Your task to perform on an android device: Search for macbook air on walmart, select the first entry, add it to the cart, then select checkout. Image 0: 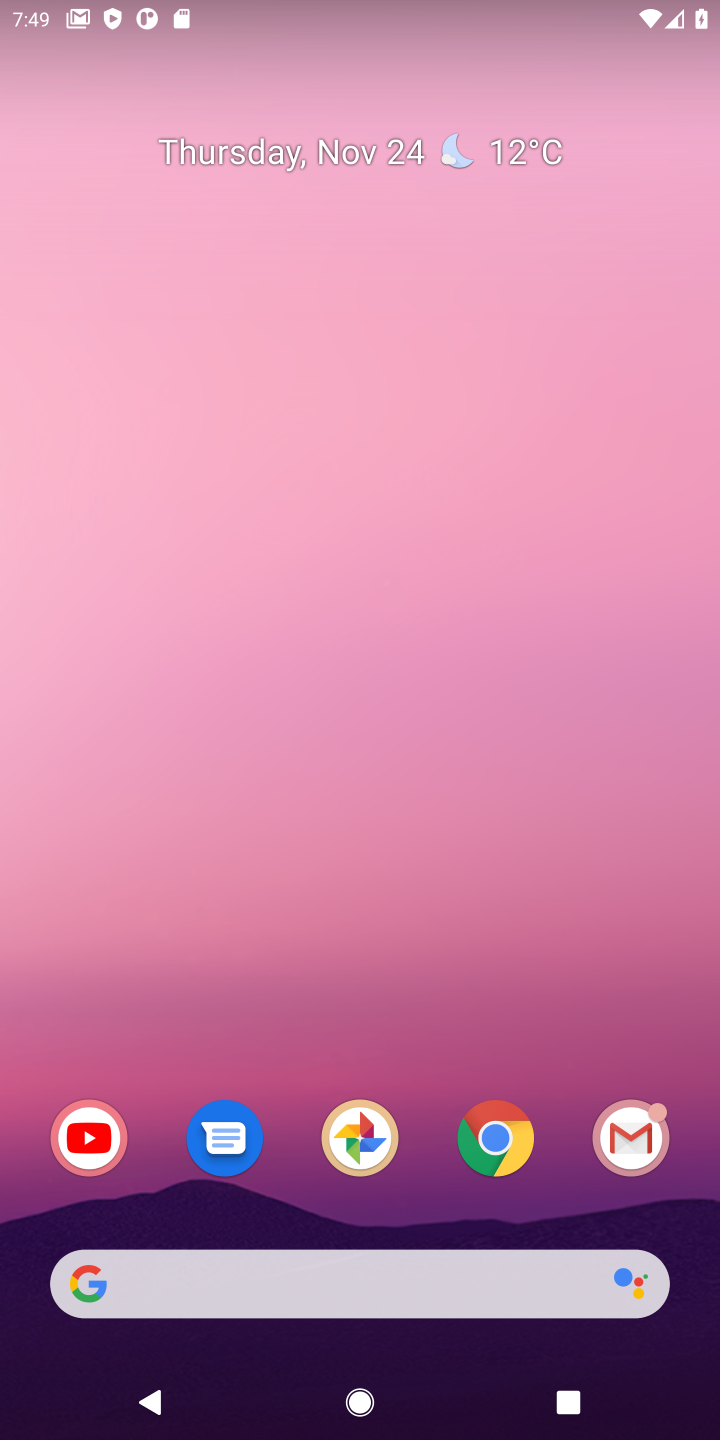
Step 0: click (495, 1124)
Your task to perform on an android device: Search for macbook air on walmart, select the first entry, add it to the cart, then select checkout. Image 1: 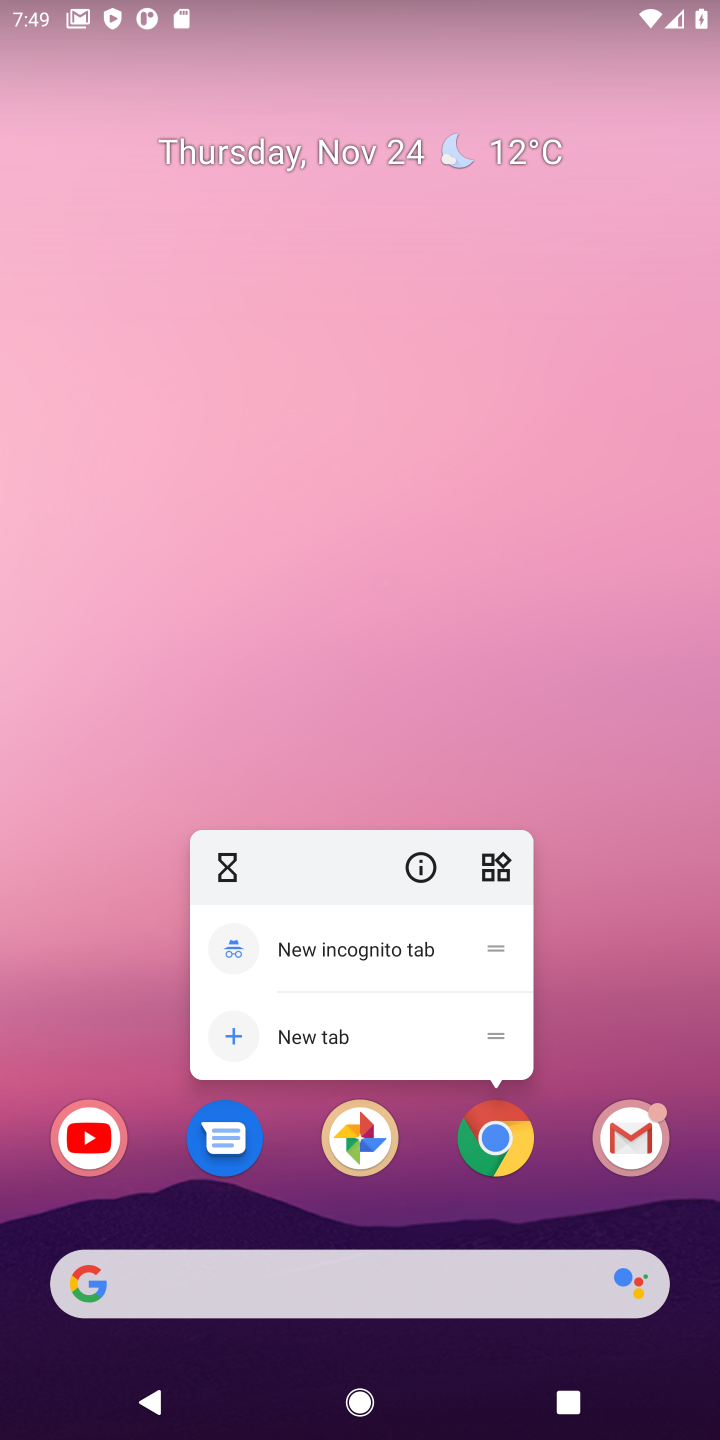
Step 1: click (505, 1135)
Your task to perform on an android device: Search for macbook air on walmart, select the first entry, add it to the cart, then select checkout. Image 2: 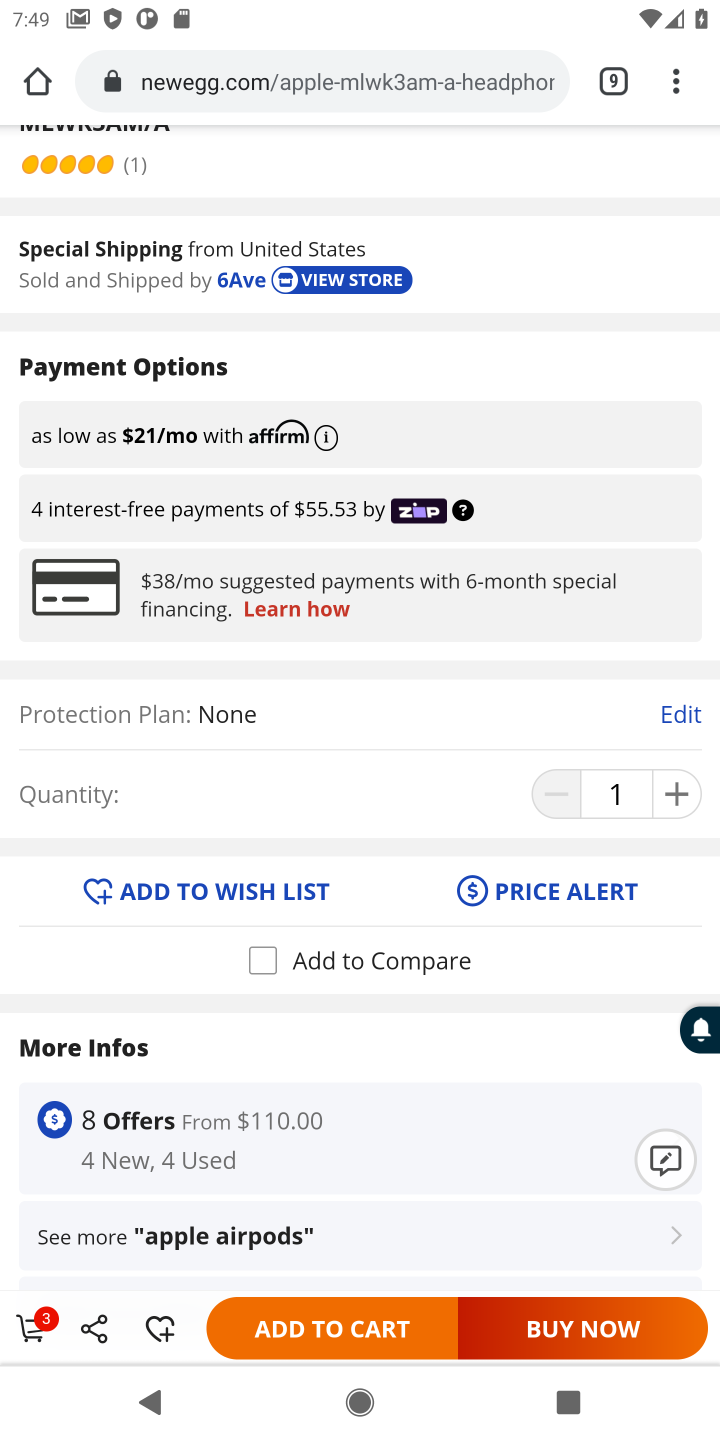
Step 2: click (633, 66)
Your task to perform on an android device: Search for macbook air on walmart, select the first entry, add it to the cart, then select checkout. Image 3: 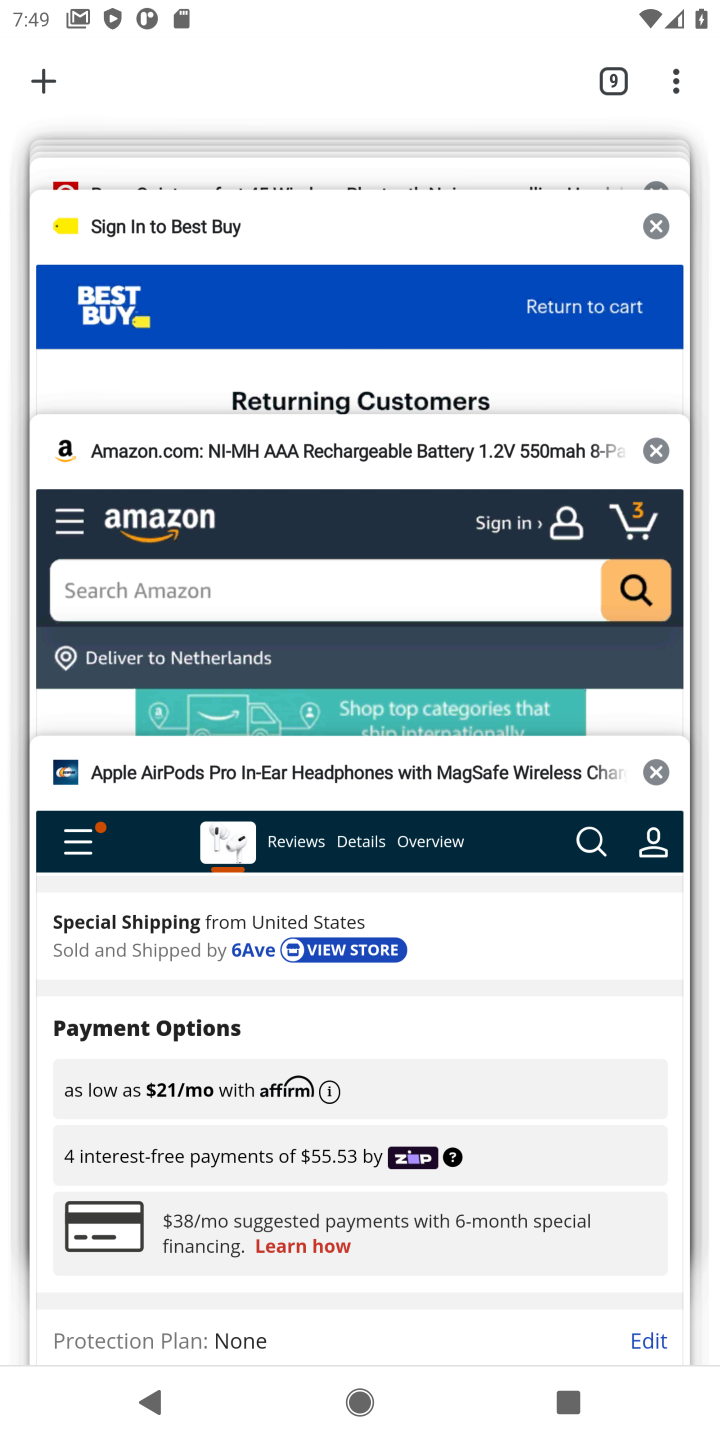
Step 3: drag from (275, 294) to (357, 1137)
Your task to perform on an android device: Search for macbook air on walmart, select the first entry, add it to the cart, then select checkout. Image 4: 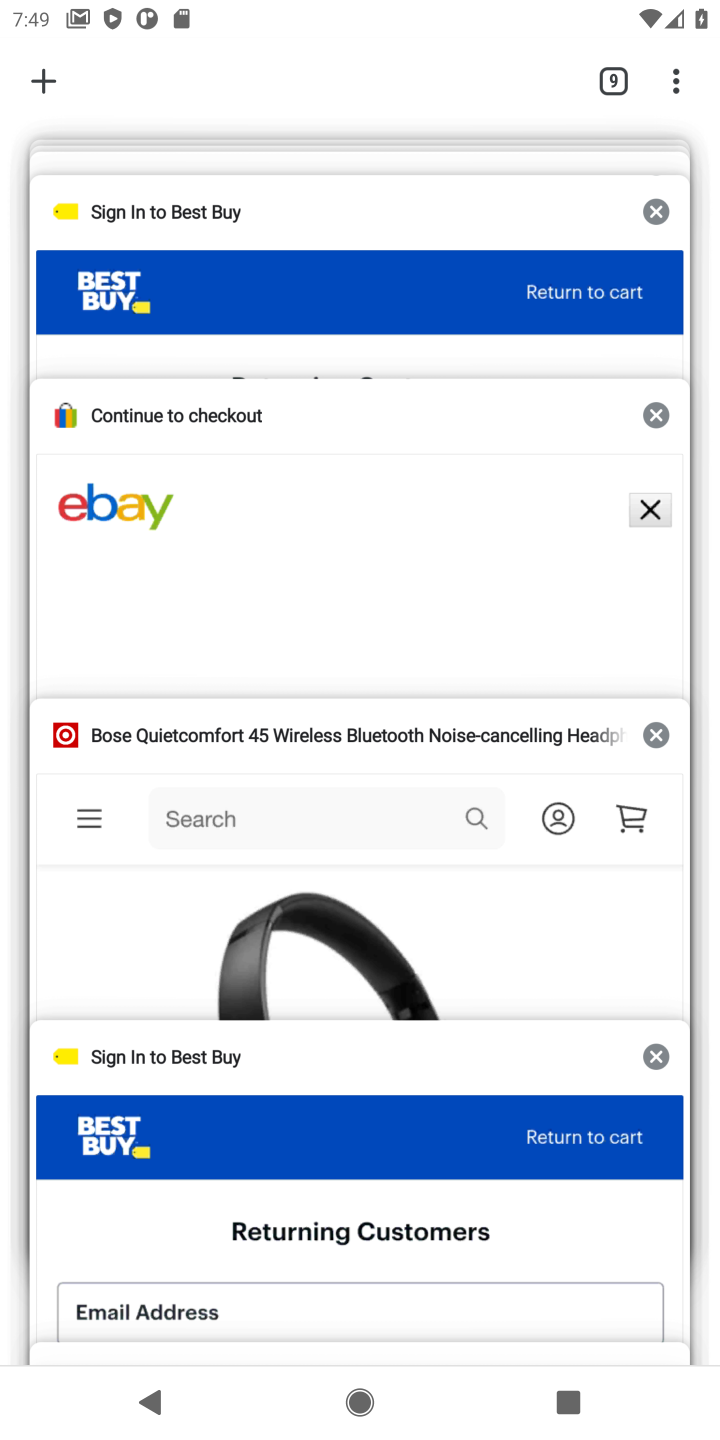
Step 4: click (681, 65)
Your task to perform on an android device: Search for macbook air on walmart, select the first entry, add it to the cart, then select checkout. Image 5: 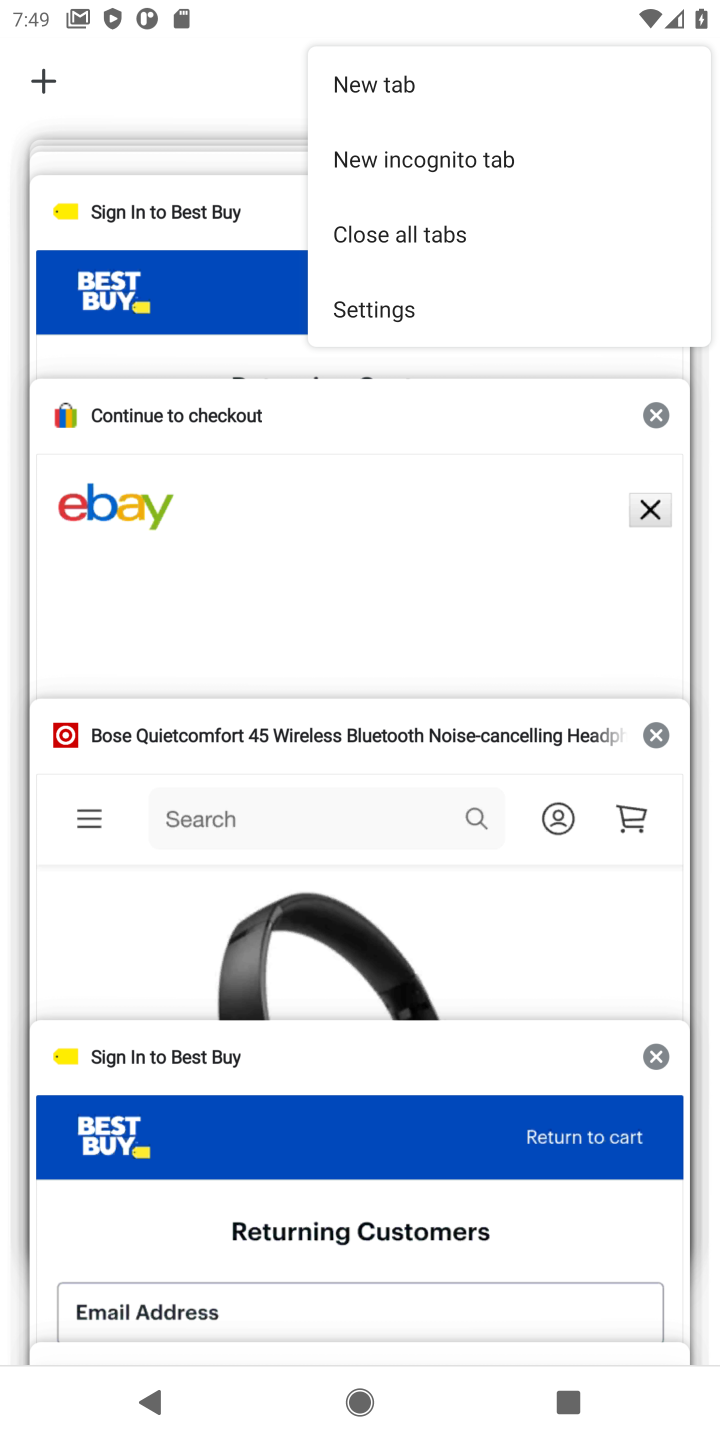
Step 5: click (435, 217)
Your task to perform on an android device: Search for macbook air on walmart, select the first entry, add it to the cart, then select checkout. Image 6: 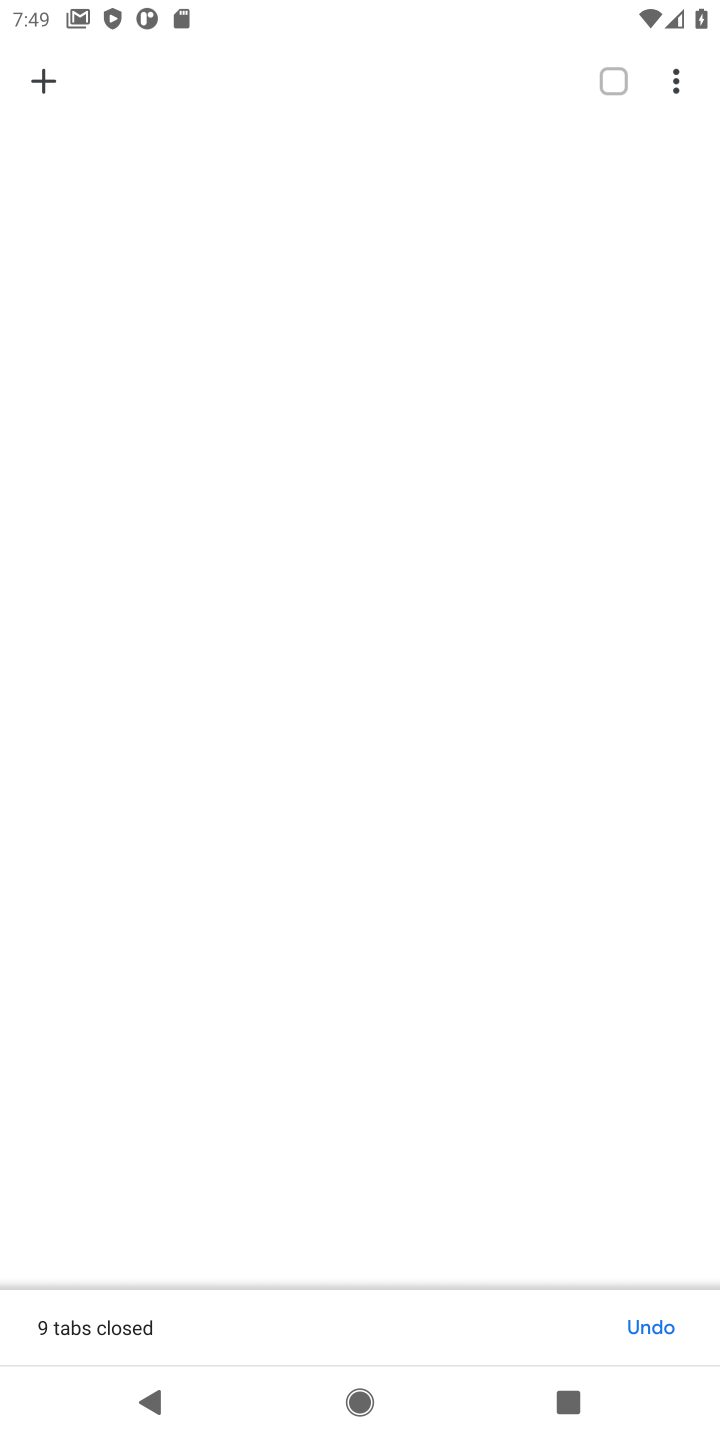
Step 6: click (39, 79)
Your task to perform on an android device: Search for macbook air on walmart, select the first entry, add it to the cart, then select checkout. Image 7: 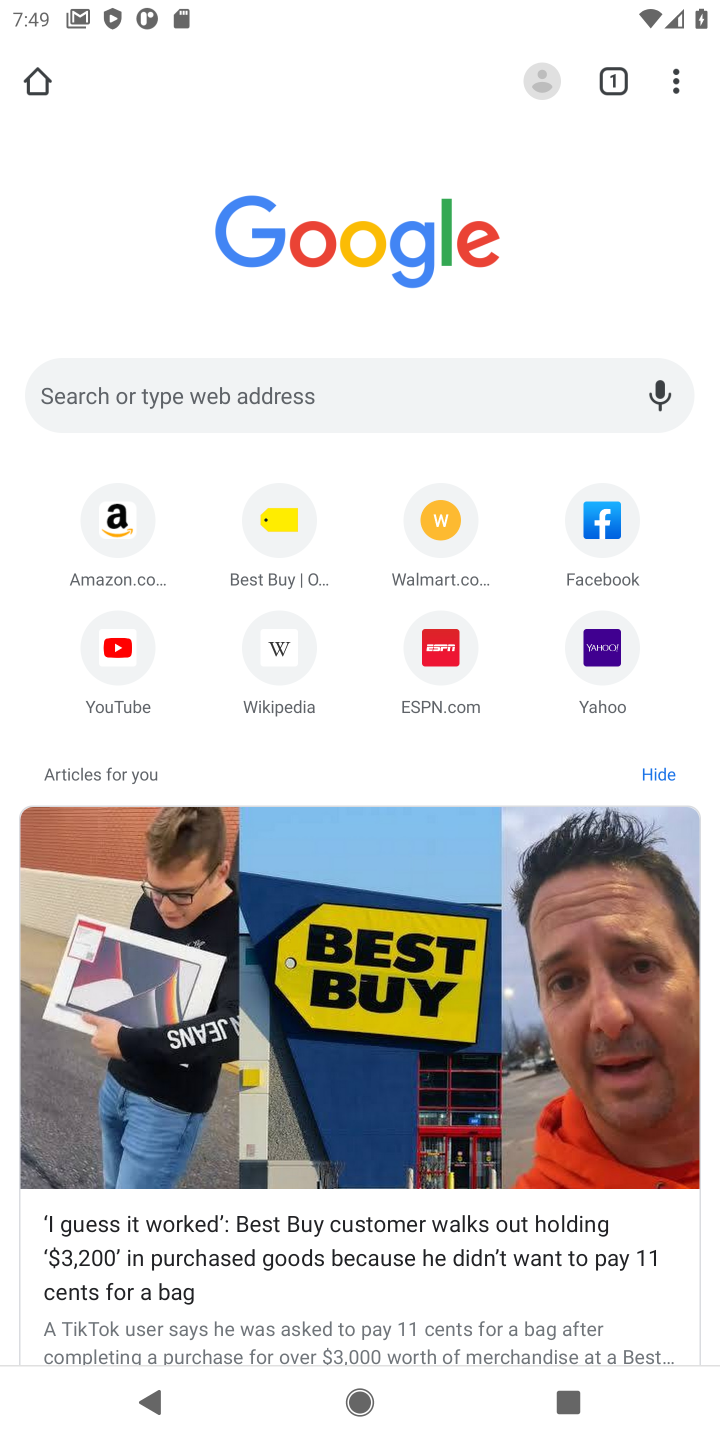
Step 7: click (193, 383)
Your task to perform on an android device: Search for macbook air on walmart, select the first entry, add it to the cart, then select checkout. Image 8: 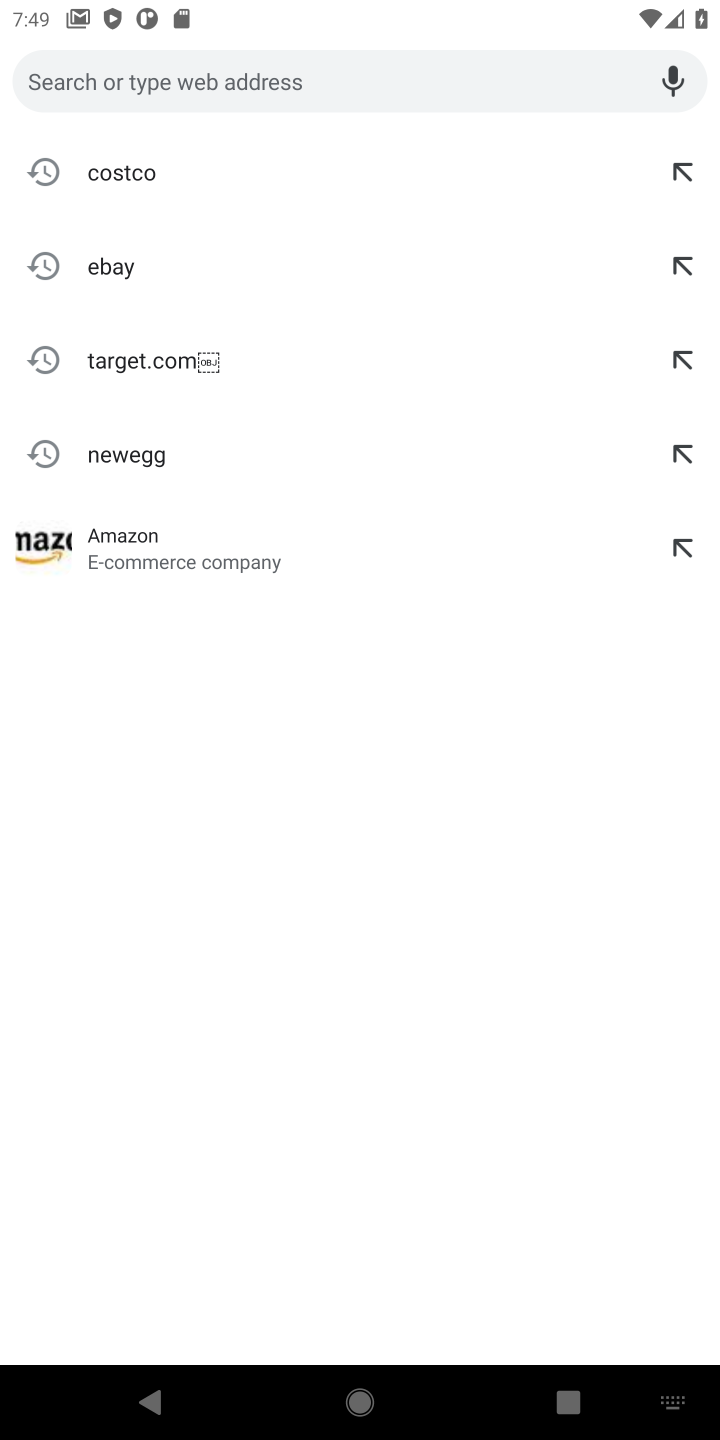
Step 8: click (135, 84)
Your task to perform on an android device: Search for macbook air on walmart, select the first entry, add it to the cart, then select checkout. Image 9: 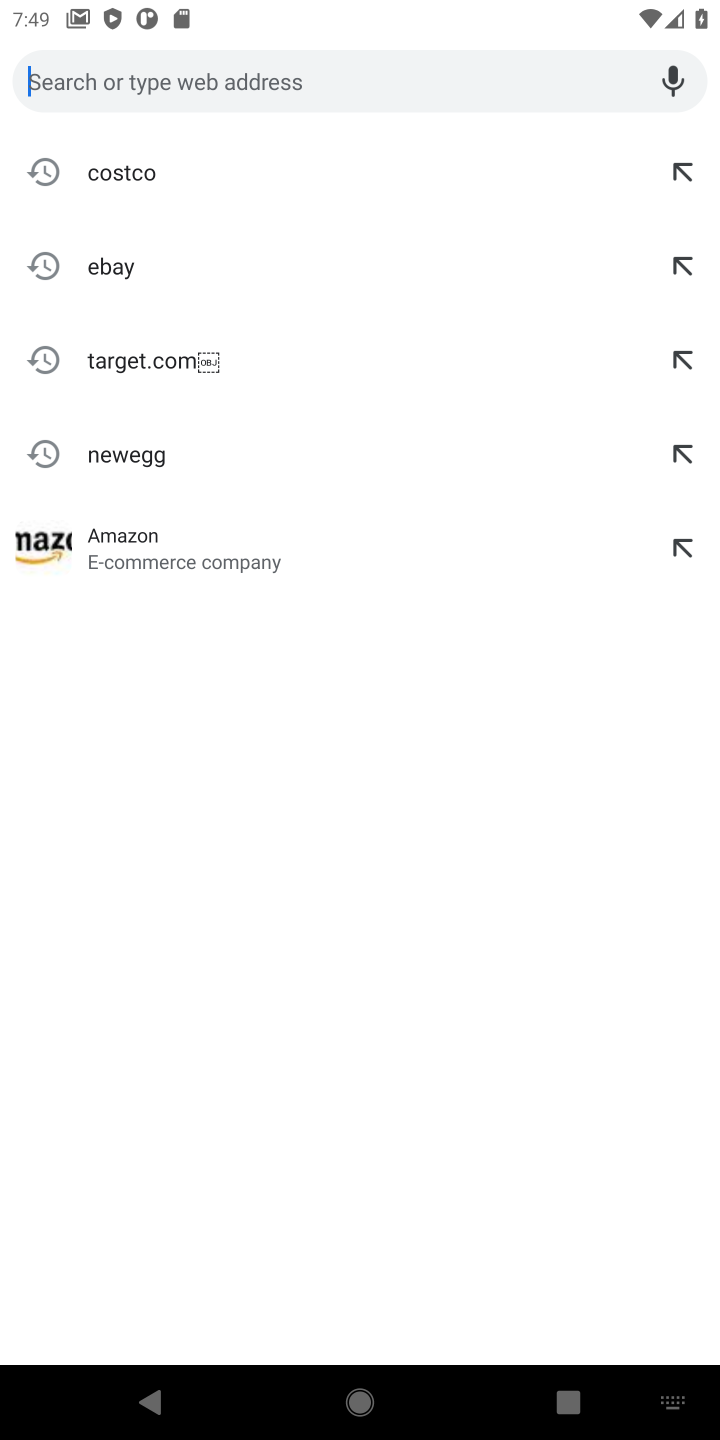
Step 9: type "walmart"
Your task to perform on an android device: Search for macbook air on walmart, select the first entry, add it to the cart, then select checkout. Image 10: 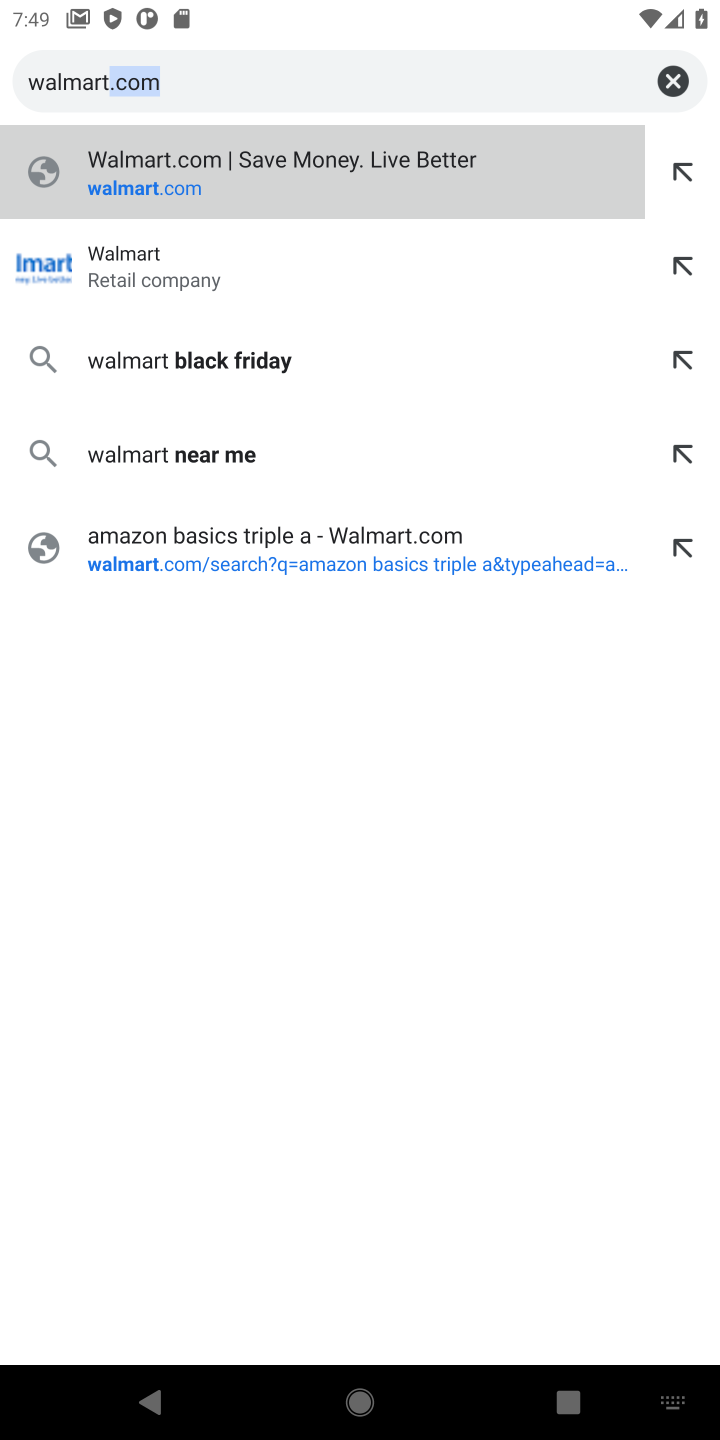
Step 10: click (204, 180)
Your task to perform on an android device: Search for macbook air on walmart, select the first entry, add it to the cart, then select checkout. Image 11: 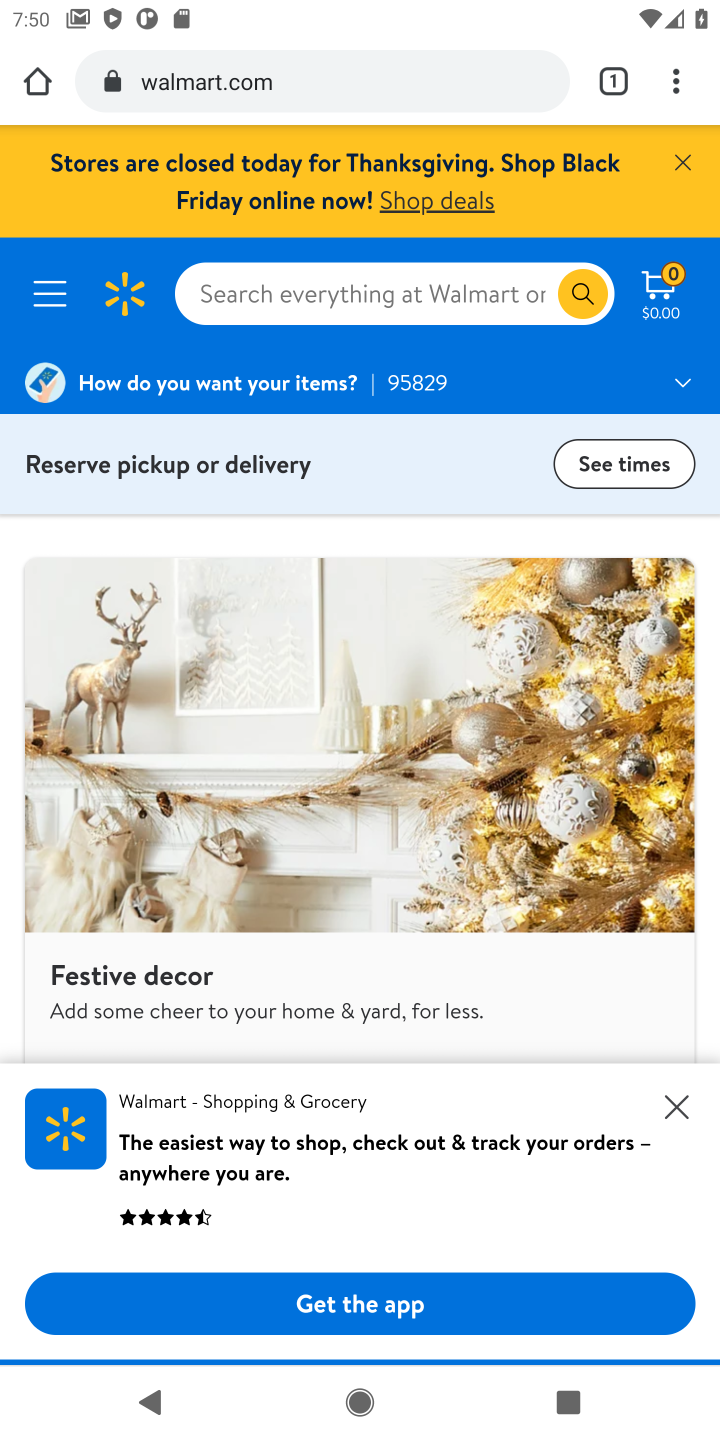
Step 11: click (350, 290)
Your task to perform on an android device: Search for macbook air on walmart, select the first entry, add it to the cart, then select checkout. Image 12: 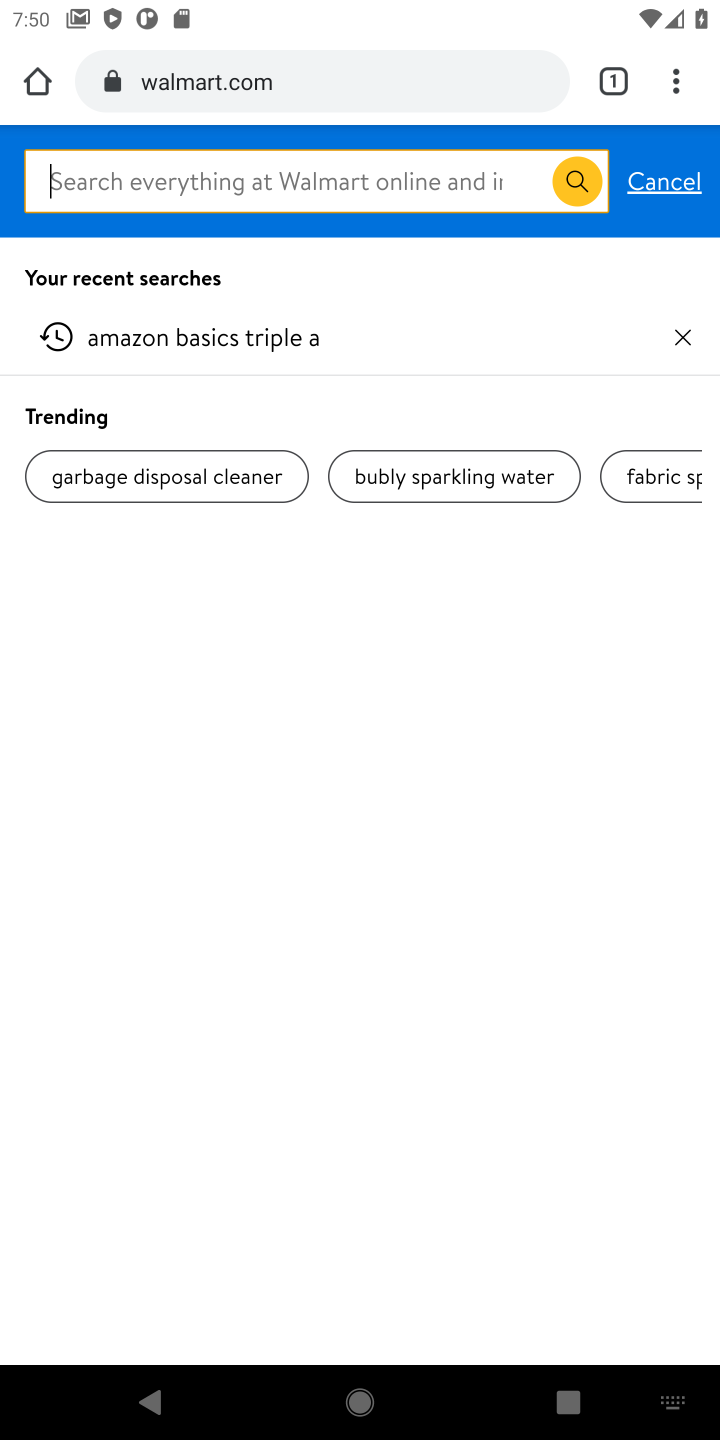
Step 12: click (133, 178)
Your task to perform on an android device: Search for macbook air on walmart, select the first entry, add it to the cart, then select checkout. Image 13: 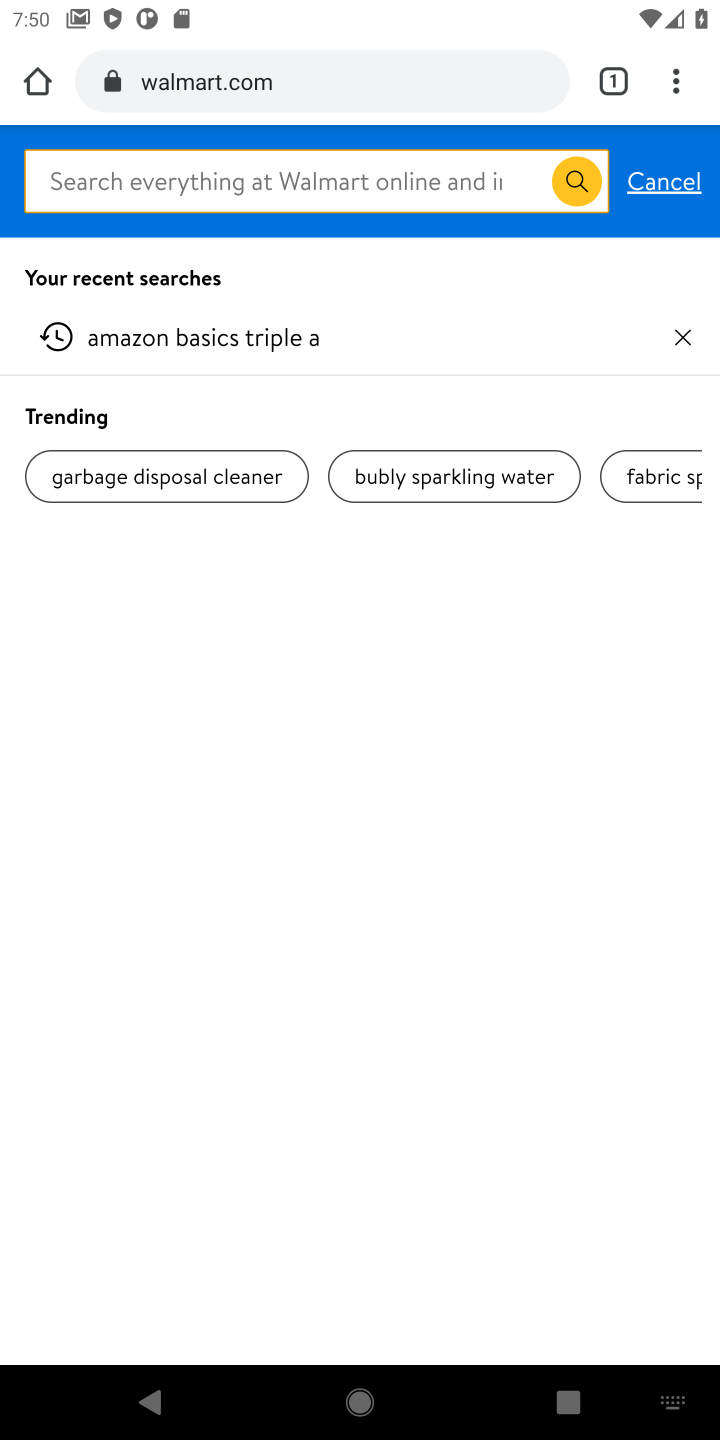
Step 13: type "macbook air"
Your task to perform on an android device: Search for macbook air on walmart, select the first entry, add it to the cart, then select checkout. Image 14: 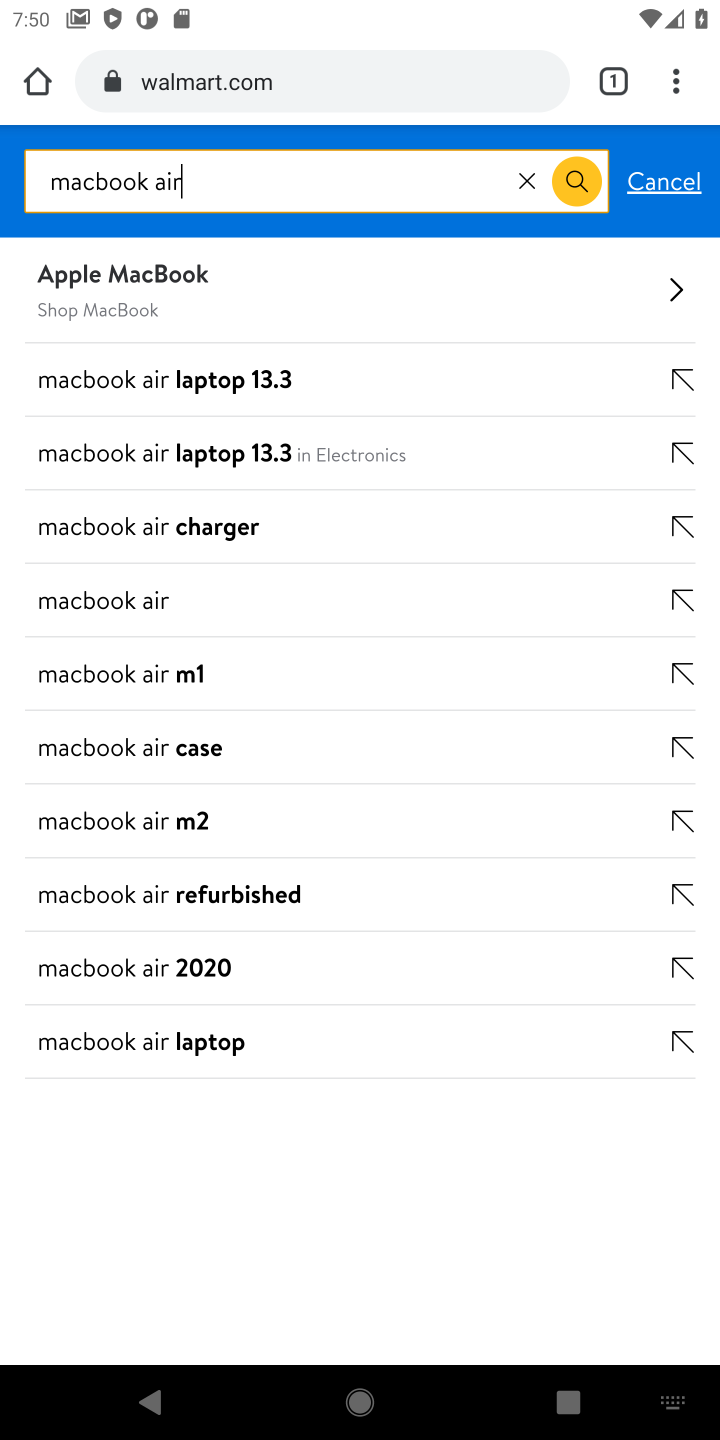
Step 14: click (259, 286)
Your task to perform on an android device: Search for macbook air on walmart, select the first entry, add it to the cart, then select checkout. Image 15: 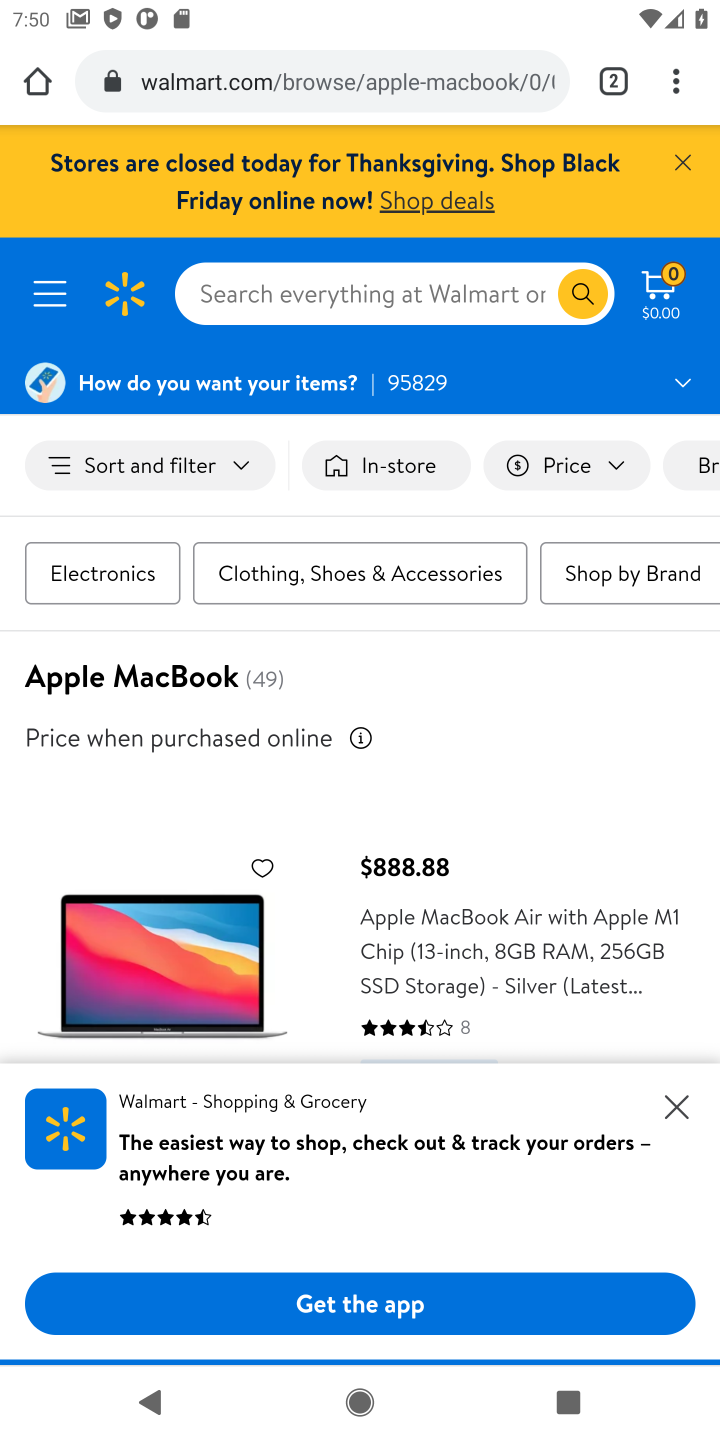
Step 15: click (679, 1113)
Your task to perform on an android device: Search for macbook air on walmart, select the first entry, add it to the cart, then select checkout. Image 16: 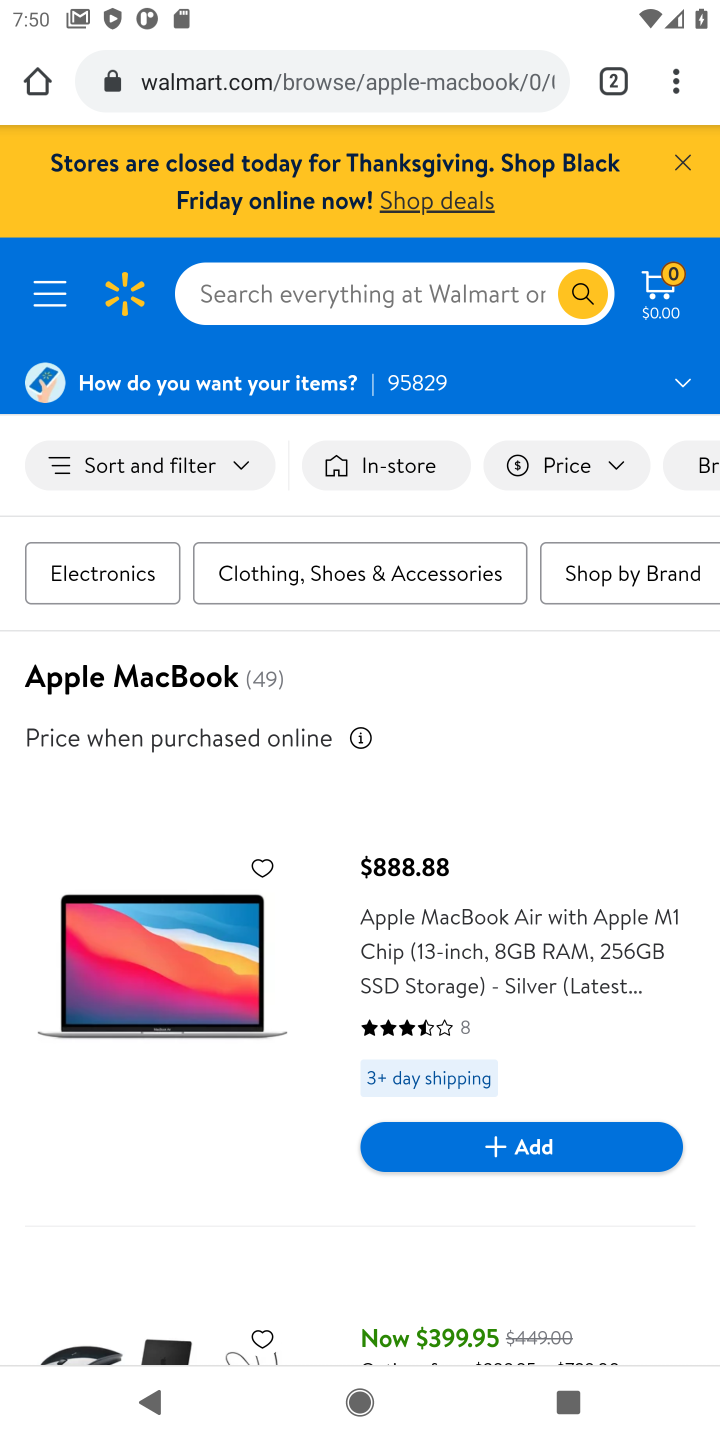
Step 16: click (525, 1134)
Your task to perform on an android device: Search for macbook air on walmart, select the first entry, add it to the cart, then select checkout. Image 17: 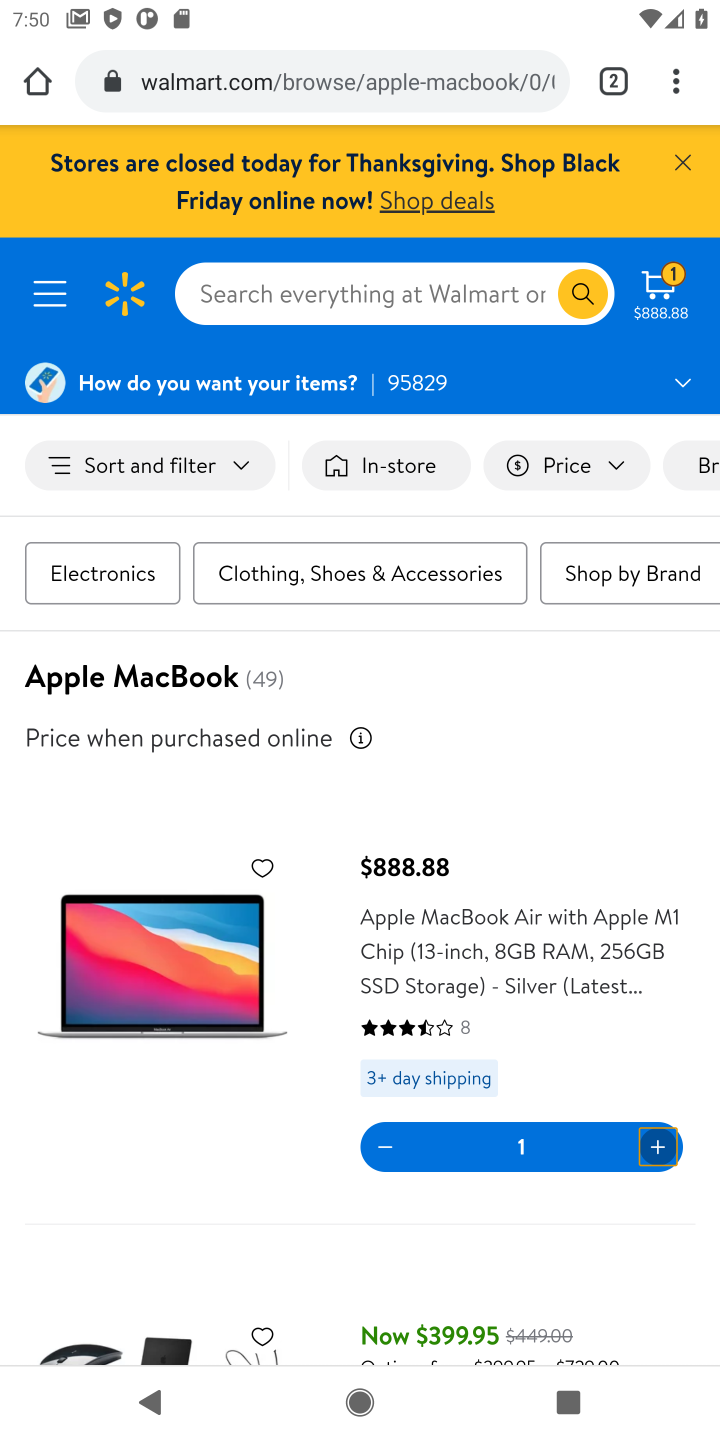
Step 17: drag from (501, 1275) to (476, 925)
Your task to perform on an android device: Search for macbook air on walmart, select the first entry, add it to the cart, then select checkout. Image 18: 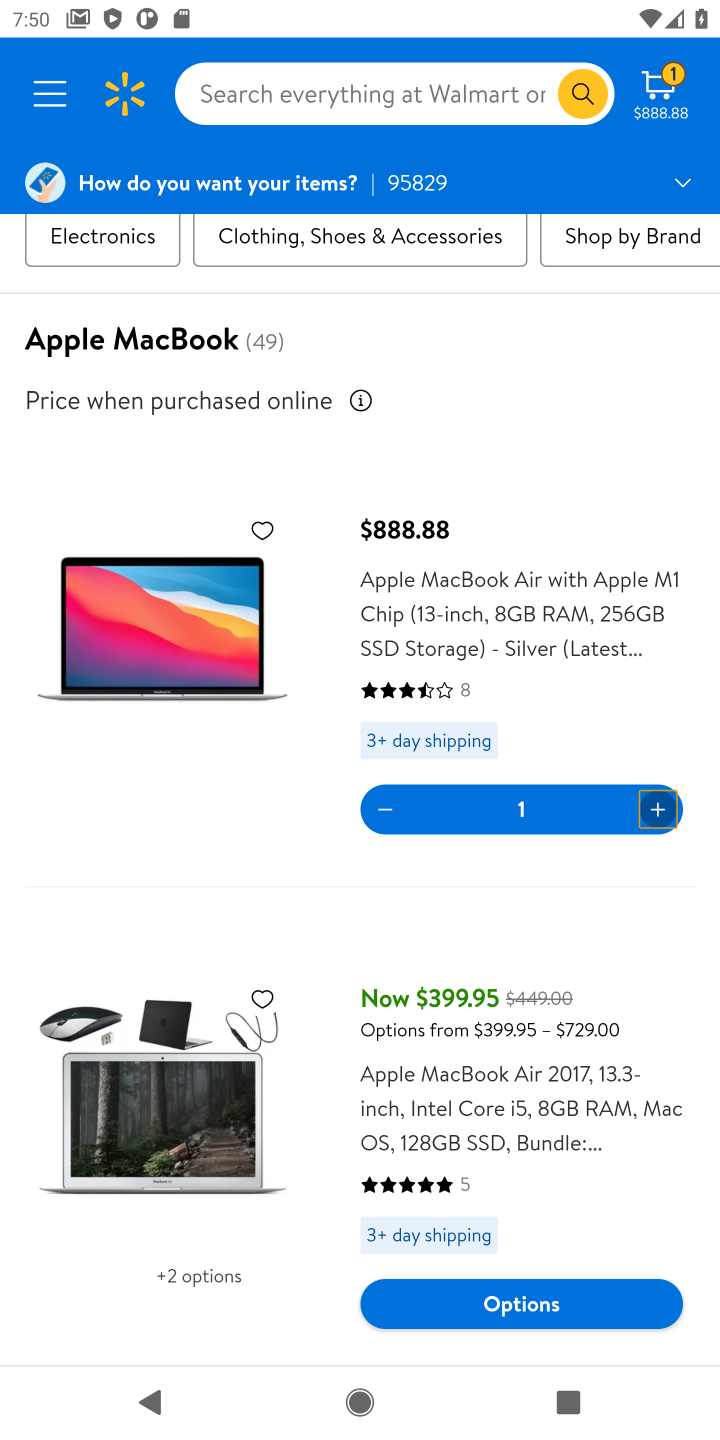
Step 18: click (673, 114)
Your task to perform on an android device: Search for macbook air on walmart, select the first entry, add it to the cart, then select checkout. Image 19: 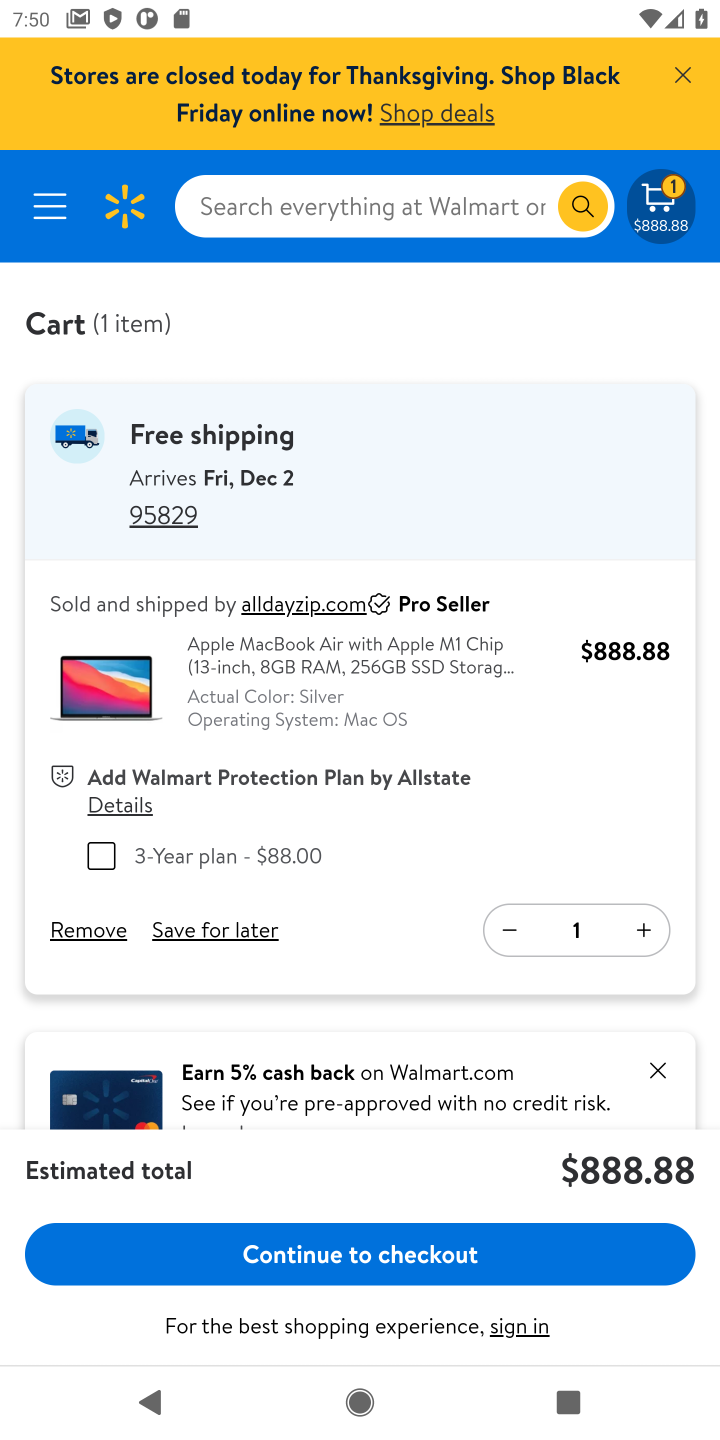
Step 19: click (371, 1245)
Your task to perform on an android device: Search for macbook air on walmart, select the first entry, add it to the cart, then select checkout. Image 20: 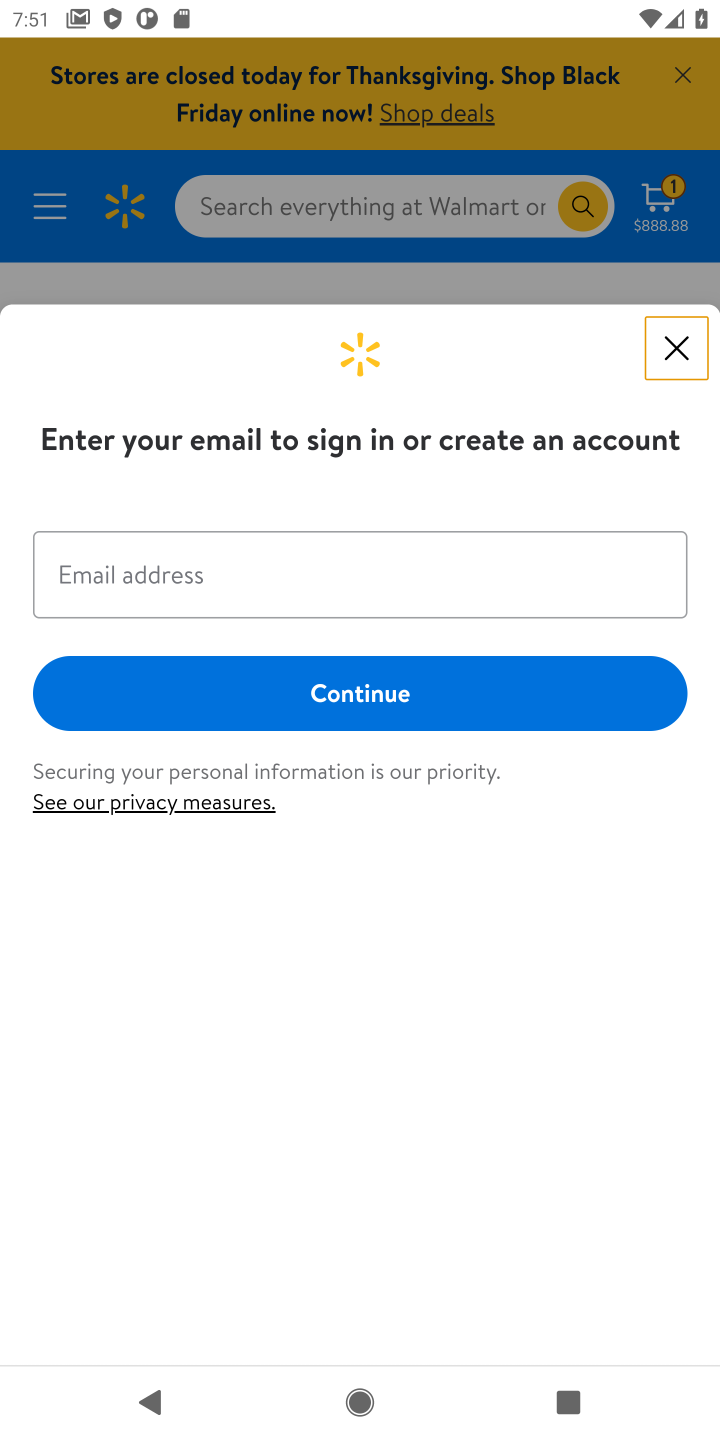
Step 20: click (680, 363)
Your task to perform on an android device: Search for macbook air on walmart, select the first entry, add it to the cart, then select checkout. Image 21: 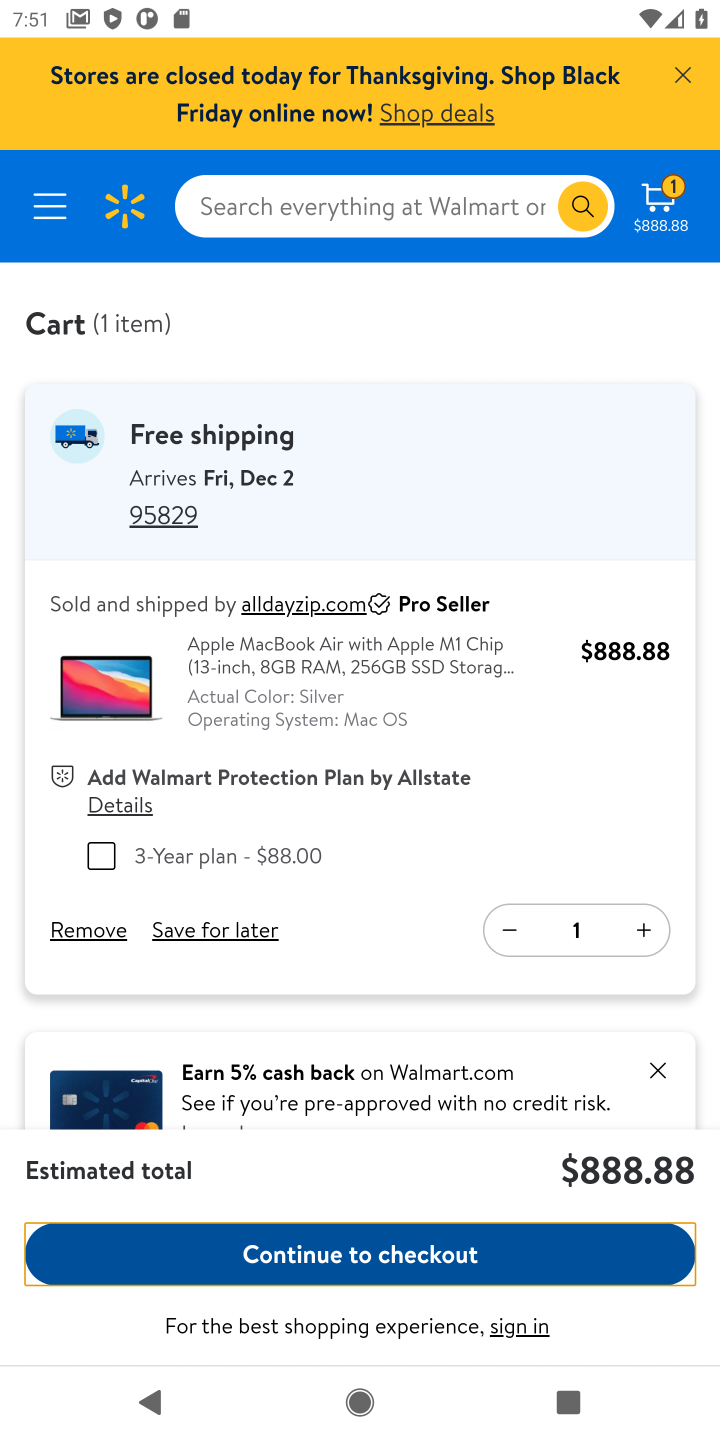
Step 21: click (325, 1259)
Your task to perform on an android device: Search for macbook air on walmart, select the first entry, add it to the cart, then select checkout. Image 22: 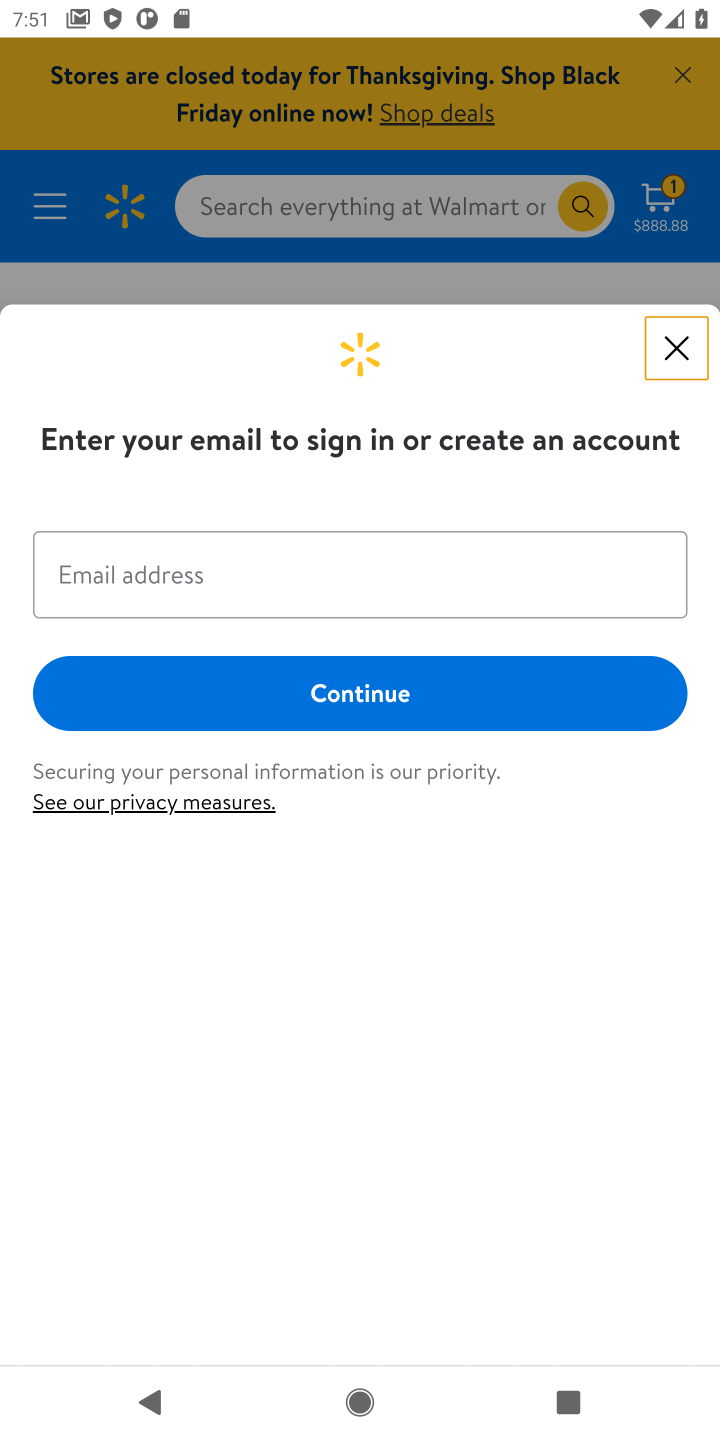
Step 22: task complete